Your task to perform on an android device: Search for Italian restaurants on Maps Image 0: 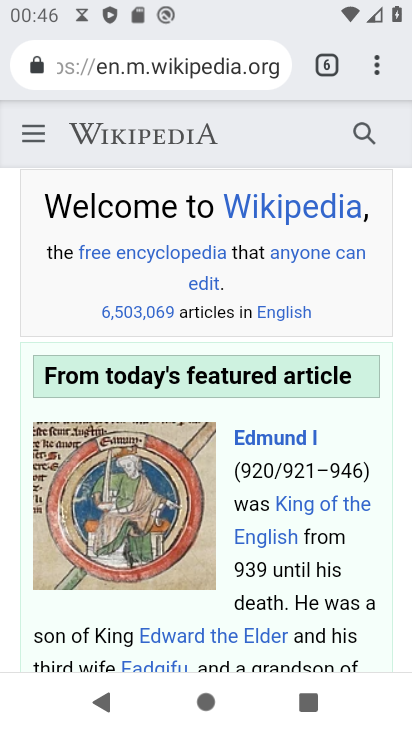
Step 0: press home button
Your task to perform on an android device: Search for Italian restaurants on Maps Image 1: 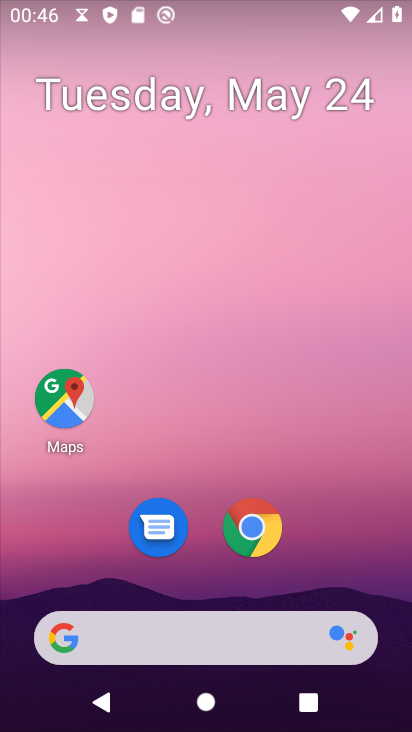
Step 1: click (60, 400)
Your task to perform on an android device: Search for Italian restaurants on Maps Image 2: 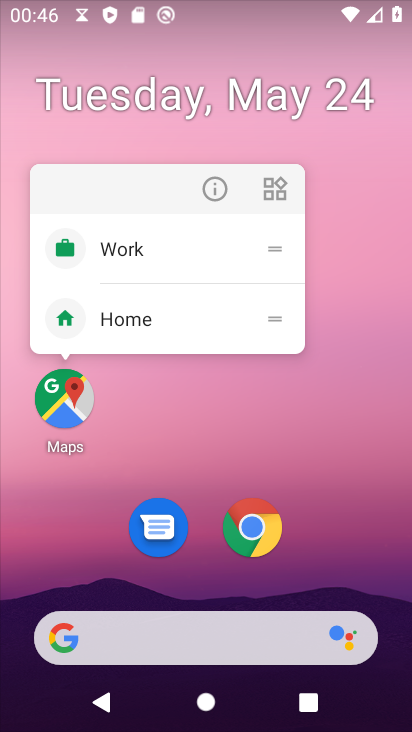
Step 2: click (64, 413)
Your task to perform on an android device: Search for Italian restaurants on Maps Image 3: 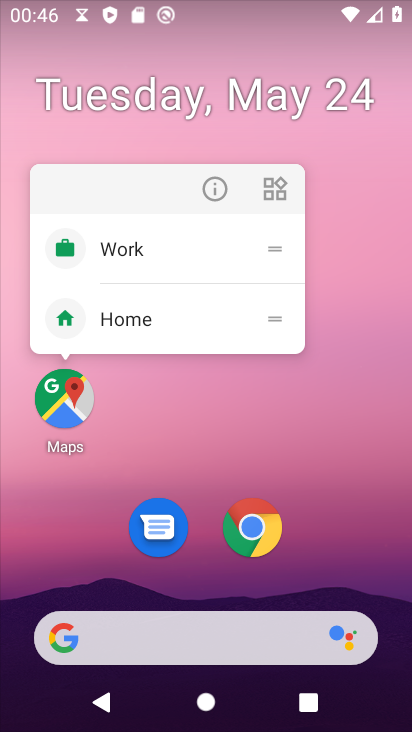
Step 3: click (64, 414)
Your task to perform on an android device: Search for Italian restaurants on Maps Image 4: 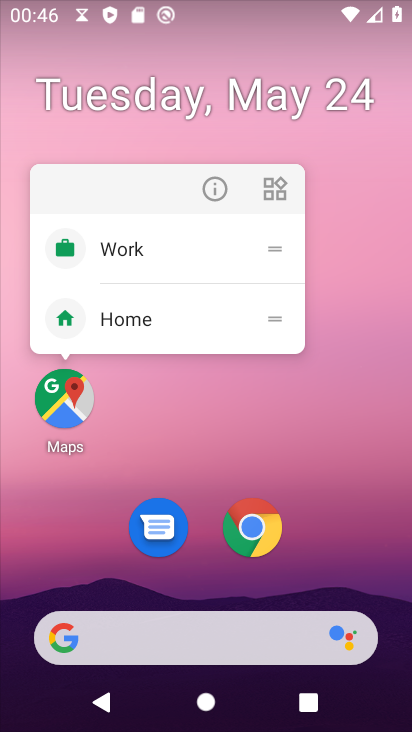
Step 4: click (64, 416)
Your task to perform on an android device: Search for Italian restaurants on Maps Image 5: 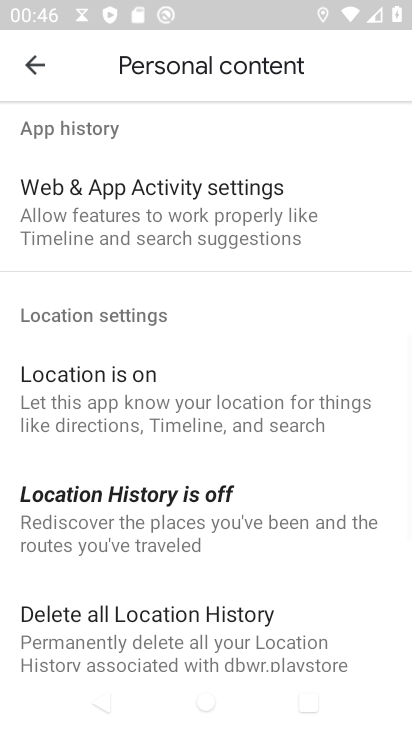
Step 5: click (37, 66)
Your task to perform on an android device: Search for Italian restaurants on Maps Image 6: 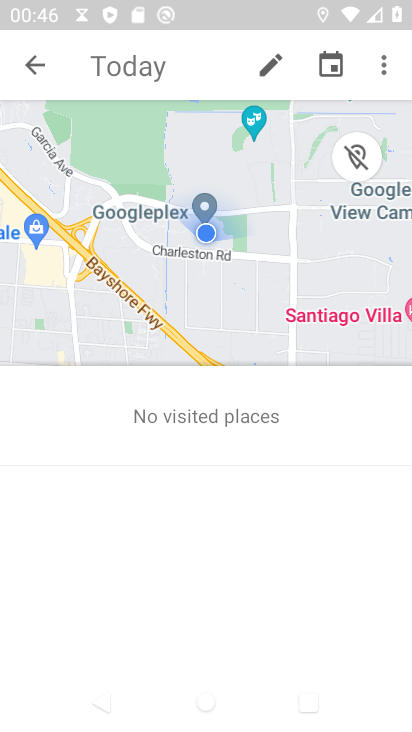
Step 6: click (41, 74)
Your task to perform on an android device: Search for Italian restaurants on Maps Image 7: 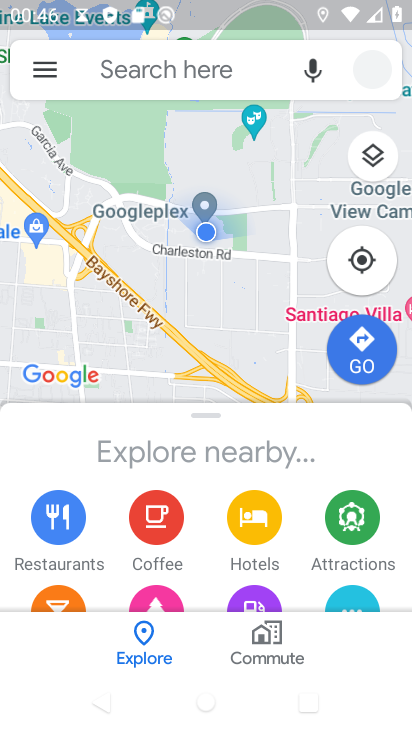
Step 7: click (151, 74)
Your task to perform on an android device: Search for Italian restaurants on Maps Image 8: 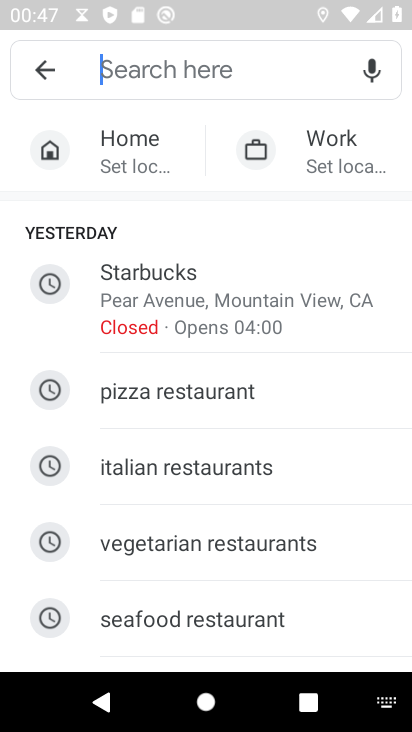
Step 8: click (202, 459)
Your task to perform on an android device: Search for Italian restaurants on Maps Image 9: 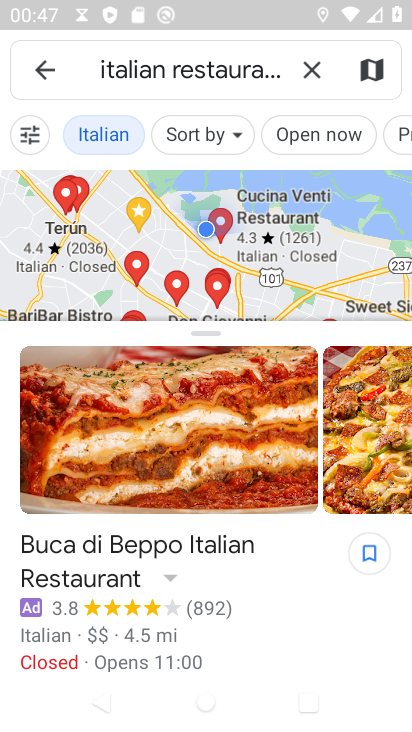
Step 9: task complete